Your task to perform on an android device: Open Wikipedia Image 0: 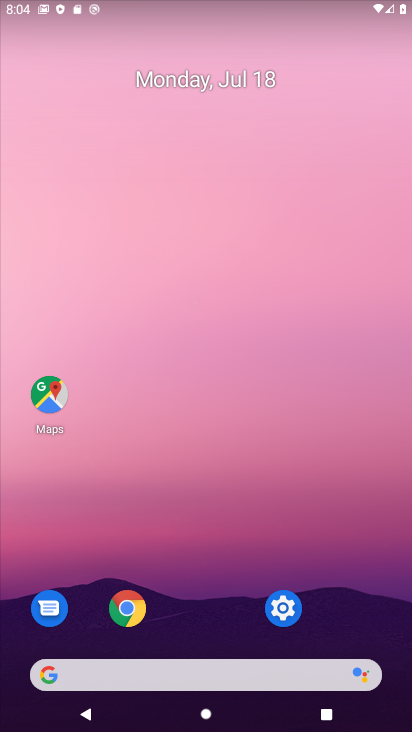
Step 0: click (137, 596)
Your task to perform on an android device: Open Wikipedia Image 1: 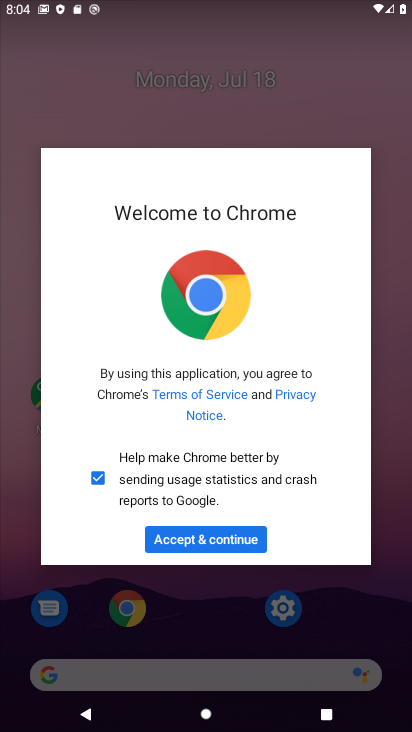
Step 1: click (192, 539)
Your task to perform on an android device: Open Wikipedia Image 2: 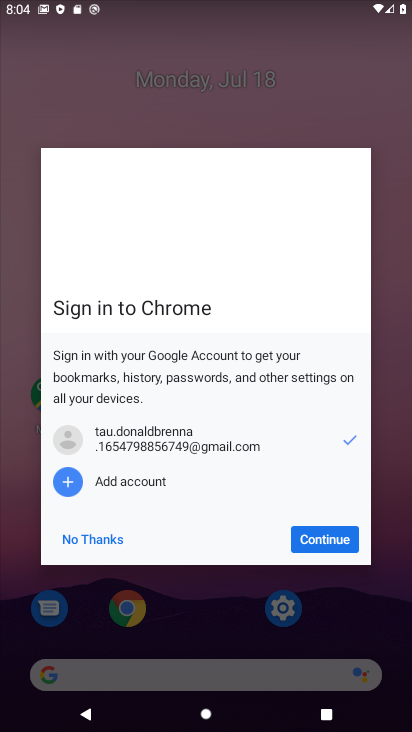
Step 2: click (321, 535)
Your task to perform on an android device: Open Wikipedia Image 3: 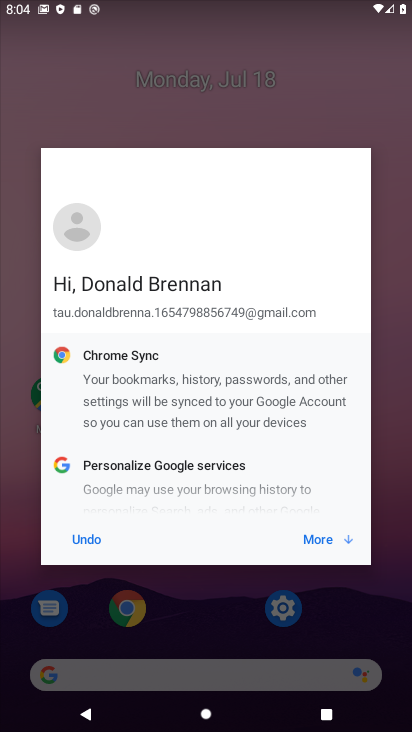
Step 3: click (346, 538)
Your task to perform on an android device: Open Wikipedia Image 4: 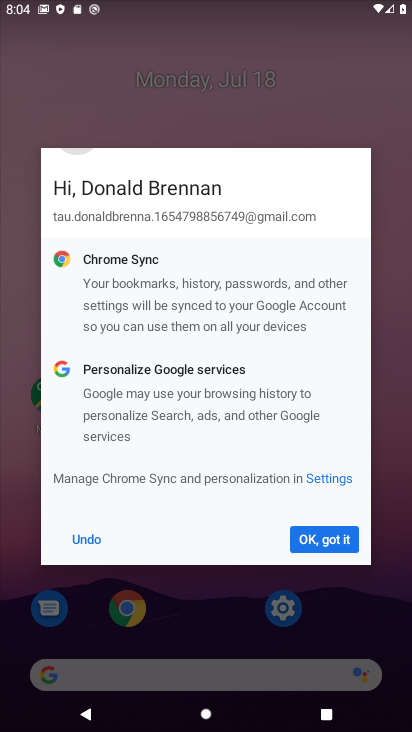
Step 4: click (337, 534)
Your task to perform on an android device: Open Wikipedia Image 5: 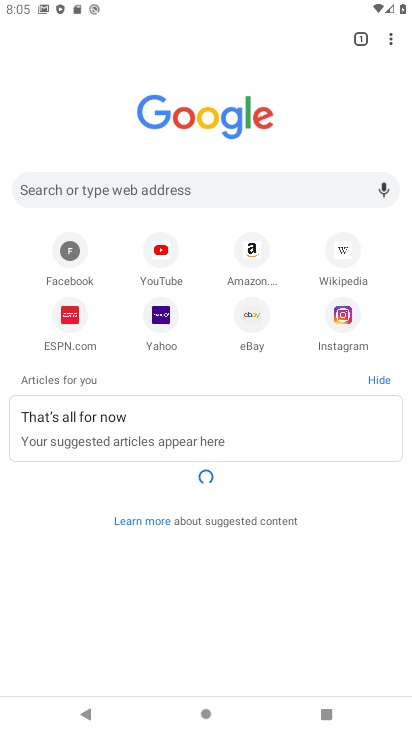
Step 5: click (339, 252)
Your task to perform on an android device: Open Wikipedia Image 6: 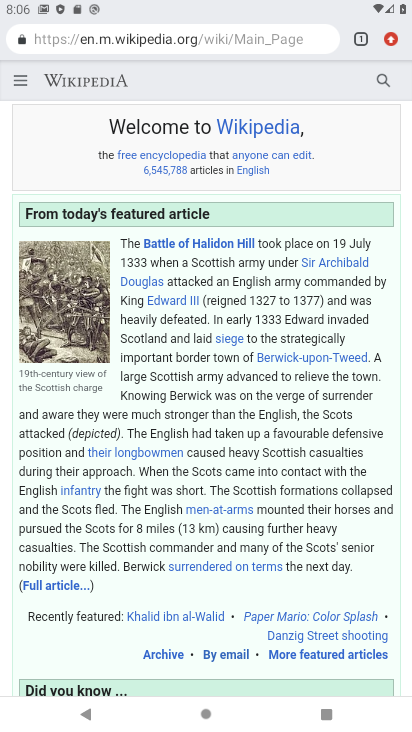
Step 6: task complete